Your task to perform on an android device: check out phone information Image 0: 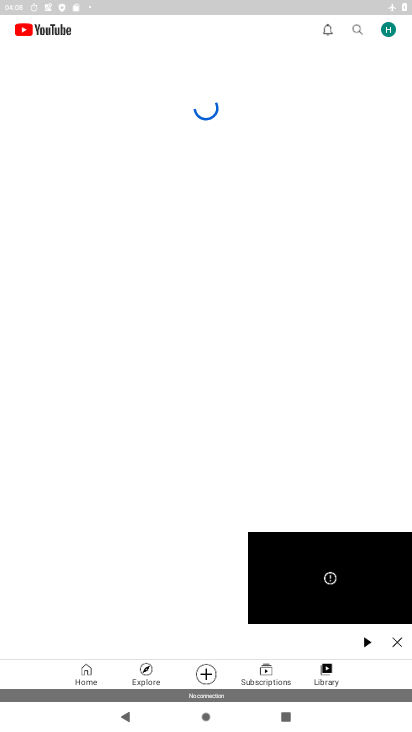
Step 0: drag from (337, 594) to (289, 174)
Your task to perform on an android device: check out phone information Image 1: 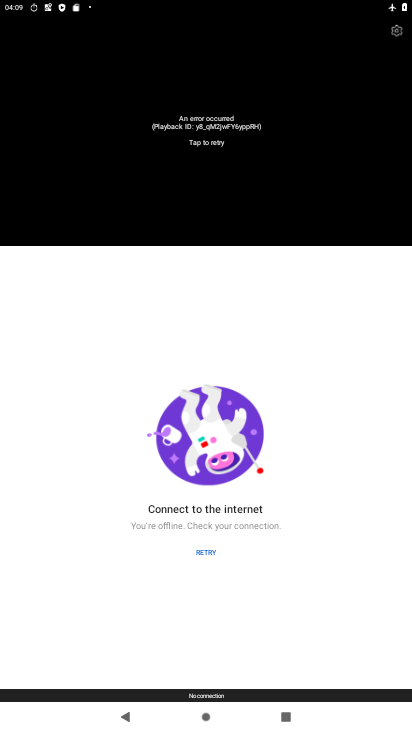
Step 1: press home button
Your task to perform on an android device: check out phone information Image 2: 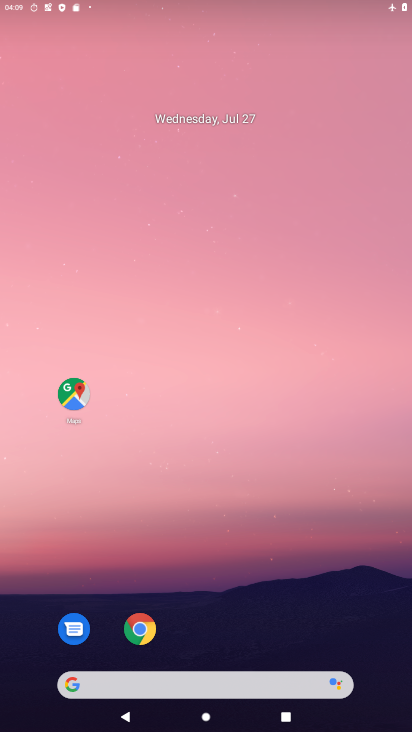
Step 2: drag from (292, 610) to (279, 97)
Your task to perform on an android device: check out phone information Image 3: 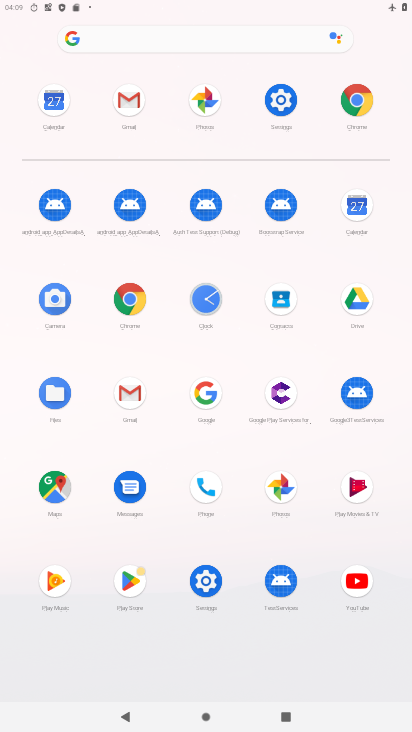
Step 3: click (202, 492)
Your task to perform on an android device: check out phone information Image 4: 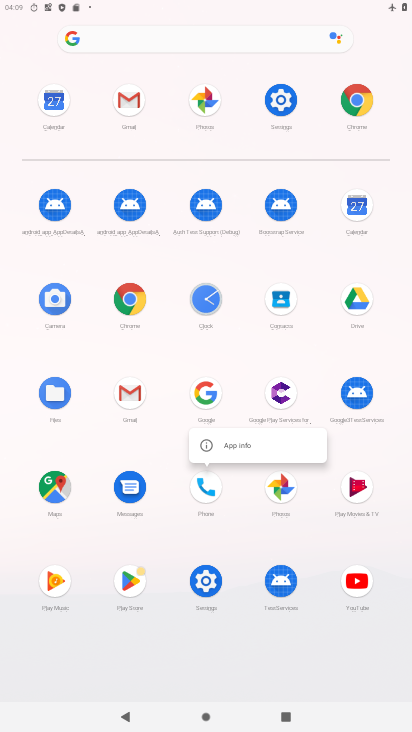
Step 4: click (240, 445)
Your task to perform on an android device: check out phone information Image 5: 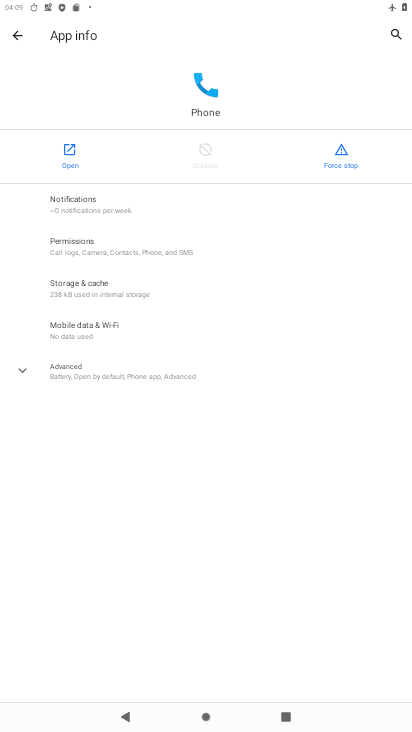
Step 5: task complete